Your task to perform on an android device: all mails in gmail Image 0: 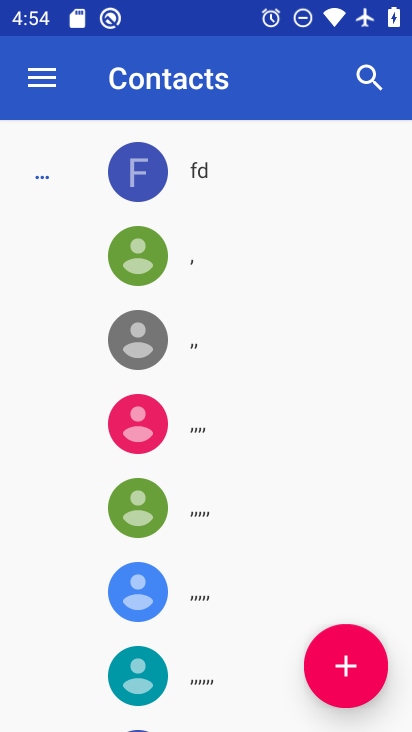
Step 0: press home button
Your task to perform on an android device: all mails in gmail Image 1: 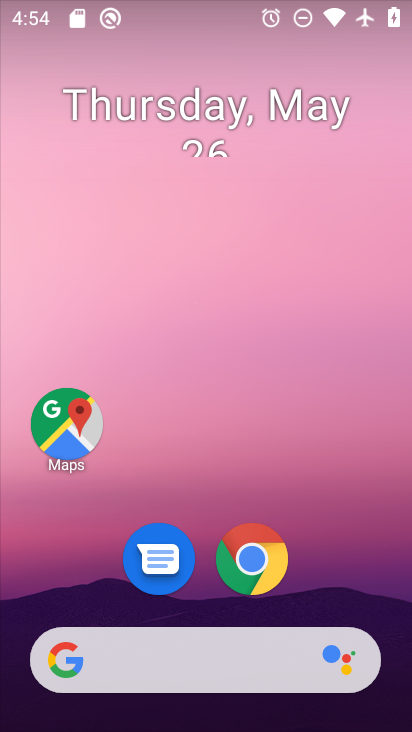
Step 1: drag from (330, 561) to (200, 5)
Your task to perform on an android device: all mails in gmail Image 2: 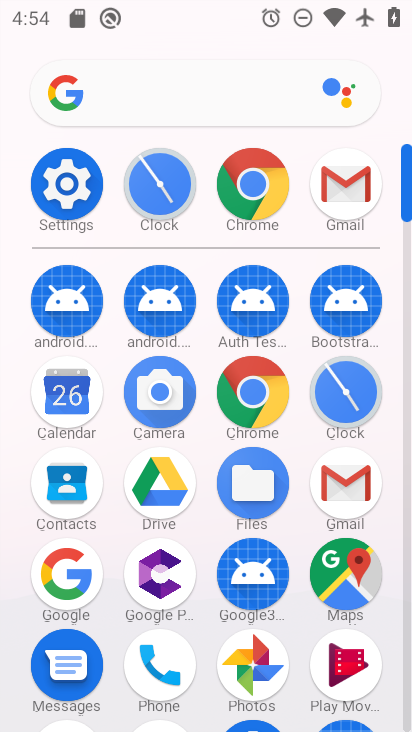
Step 2: click (349, 499)
Your task to perform on an android device: all mails in gmail Image 3: 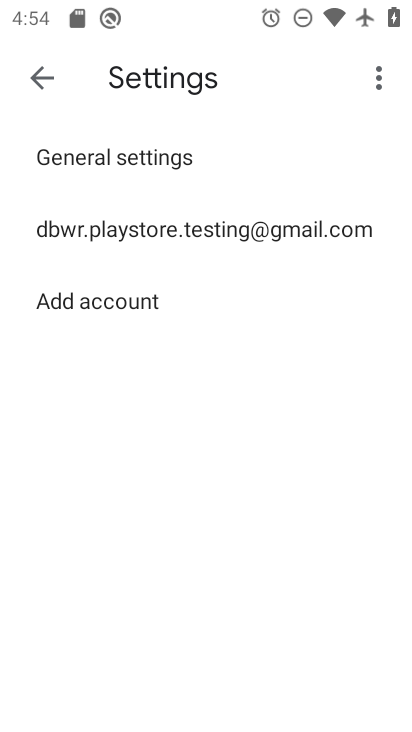
Step 3: click (23, 70)
Your task to perform on an android device: all mails in gmail Image 4: 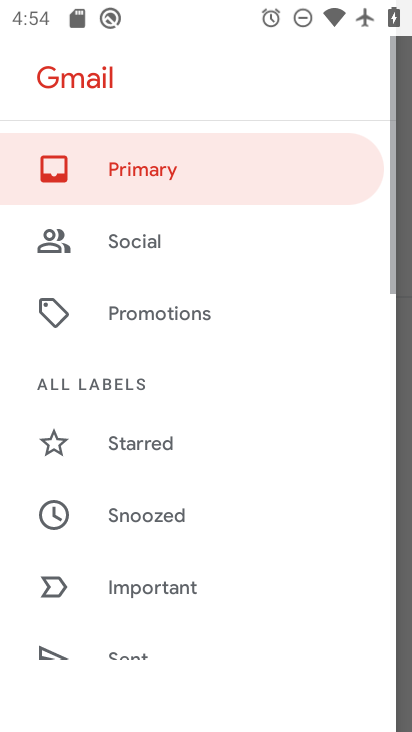
Step 4: drag from (242, 576) to (231, 0)
Your task to perform on an android device: all mails in gmail Image 5: 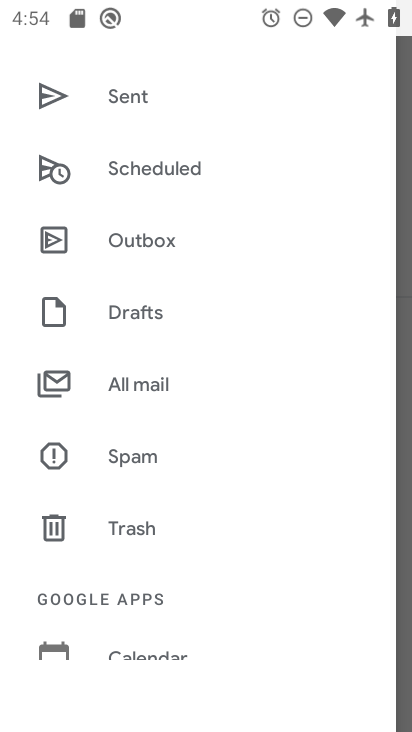
Step 5: click (196, 385)
Your task to perform on an android device: all mails in gmail Image 6: 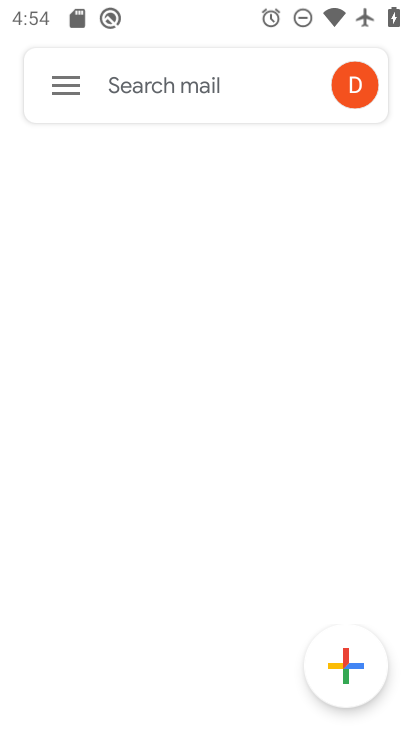
Step 6: task complete